Your task to perform on an android device: Open display settings Image 0: 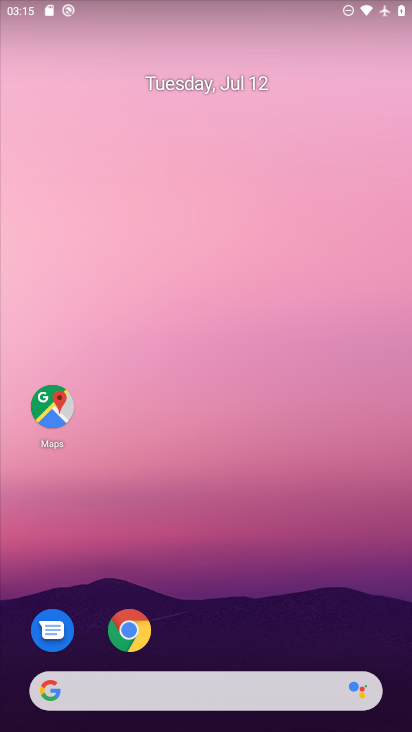
Step 0: drag from (391, 641) to (332, 92)
Your task to perform on an android device: Open display settings Image 1: 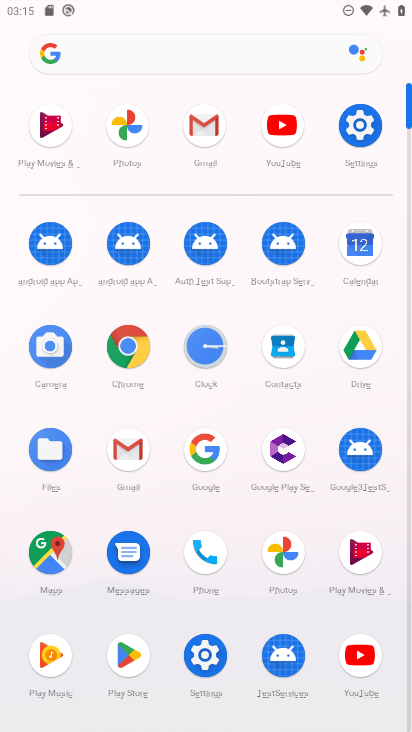
Step 1: click (207, 663)
Your task to perform on an android device: Open display settings Image 2: 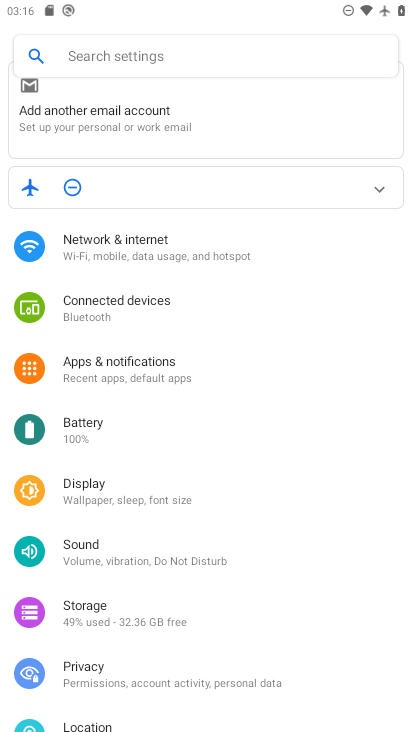
Step 2: click (111, 488)
Your task to perform on an android device: Open display settings Image 3: 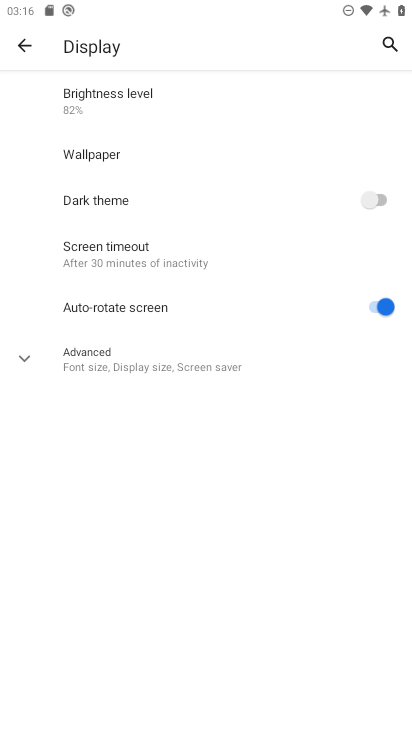
Step 3: click (21, 355)
Your task to perform on an android device: Open display settings Image 4: 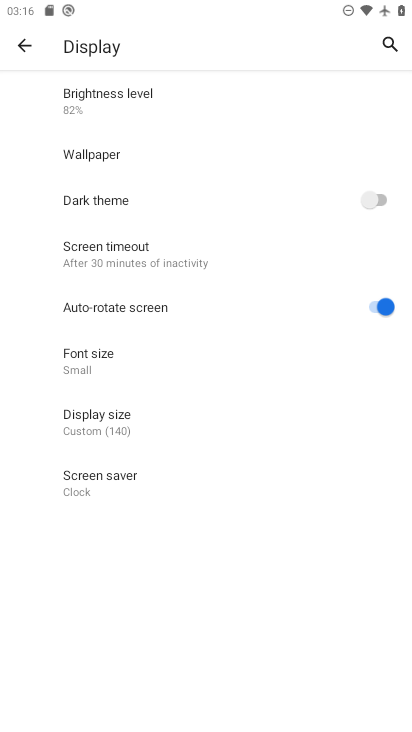
Step 4: task complete